Your task to perform on an android device: Open the web browser Image 0: 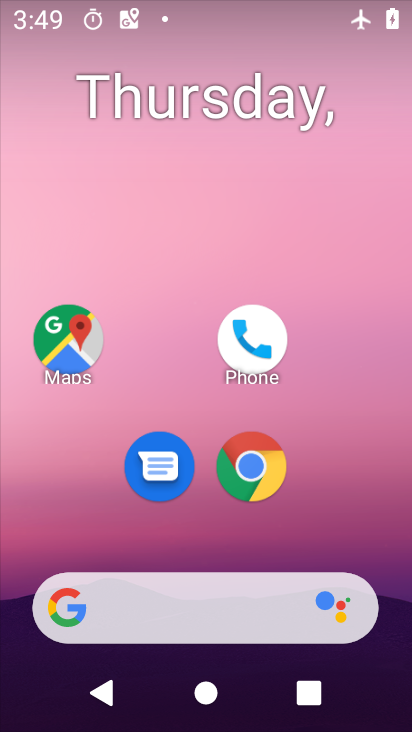
Step 0: drag from (215, 529) to (232, 349)
Your task to perform on an android device: Open the web browser Image 1: 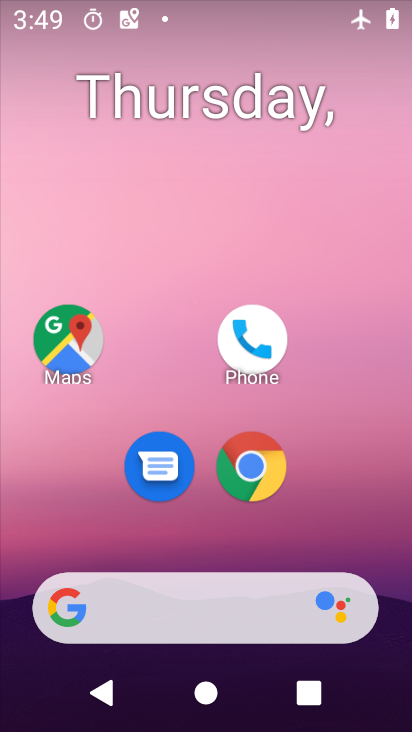
Step 1: click (250, 464)
Your task to perform on an android device: Open the web browser Image 2: 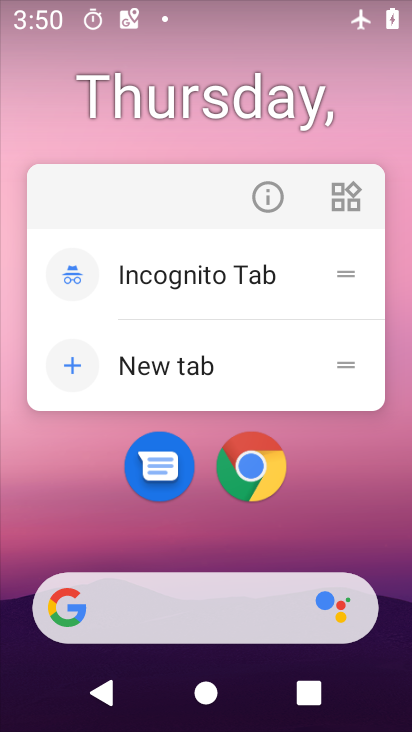
Step 2: click (258, 475)
Your task to perform on an android device: Open the web browser Image 3: 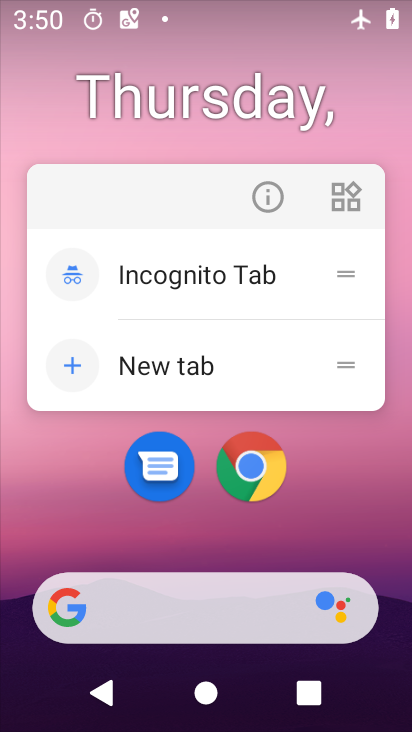
Step 3: click (202, 496)
Your task to perform on an android device: Open the web browser Image 4: 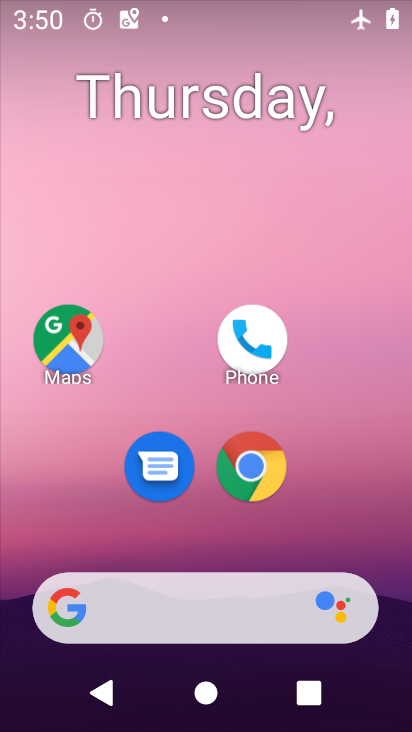
Step 4: click (255, 471)
Your task to perform on an android device: Open the web browser Image 5: 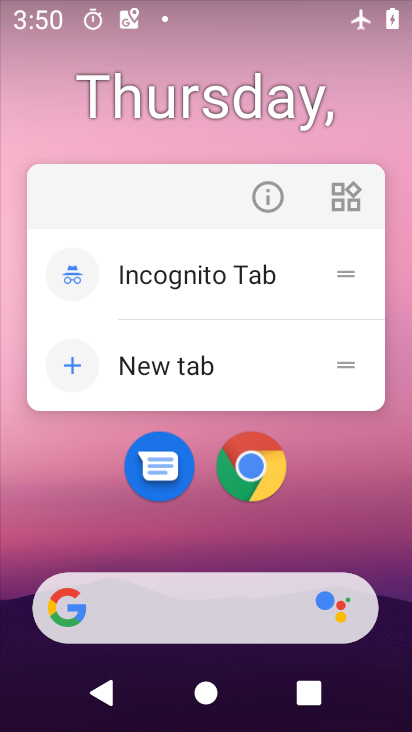
Step 5: click (283, 203)
Your task to perform on an android device: Open the web browser Image 6: 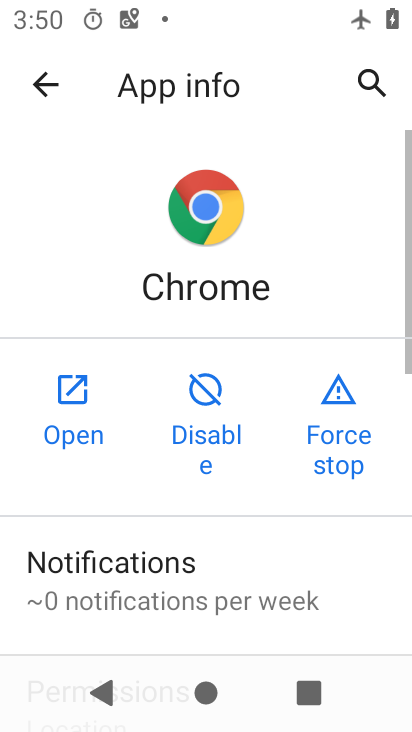
Step 6: click (54, 394)
Your task to perform on an android device: Open the web browser Image 7: 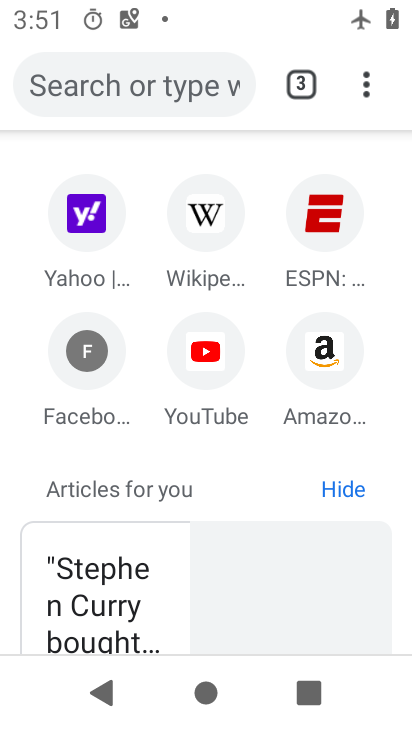
Step 7: task complete